Your task to perform on an android device: change alarm snooze length Image 0: 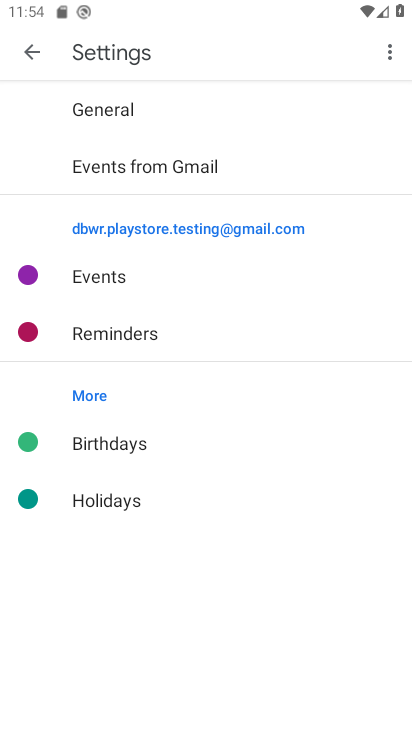
Step 0: press home button
Your task to perform on an android device: change alarm snooze length Image 1: 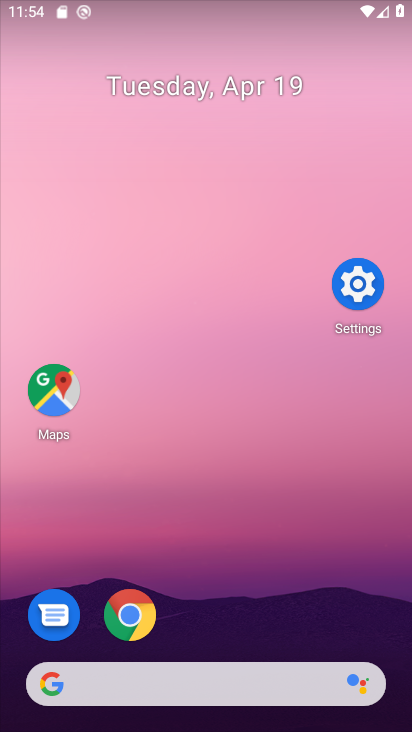
Step 1: drag from (191, 477) to (230, 185)
Your task to perform on an android device: change alarm snooze length Image 2: 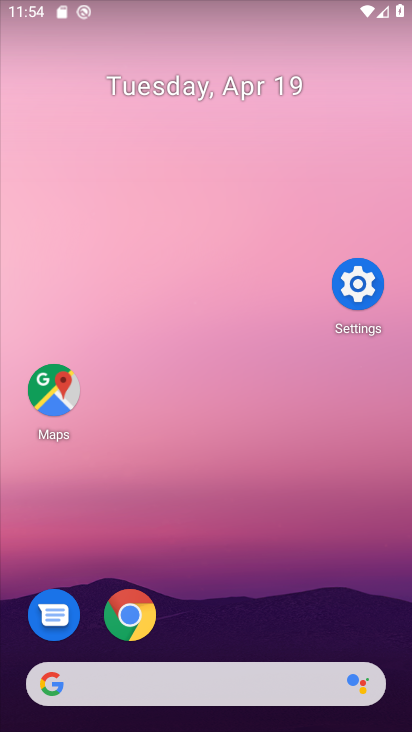
Step 2: drag from (206, 637) to (218, 73)
Your task to perform on an android device: change alarm snooze length Image 3: 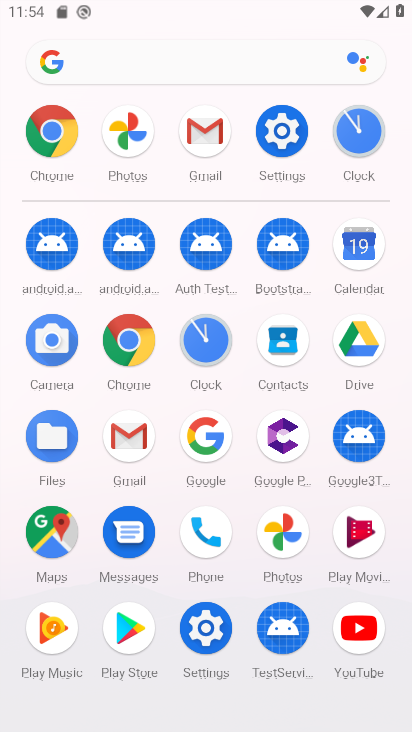
Step 3: click (209, 343)
Your task to perform on an android device: change alarm snooze length Image 4: 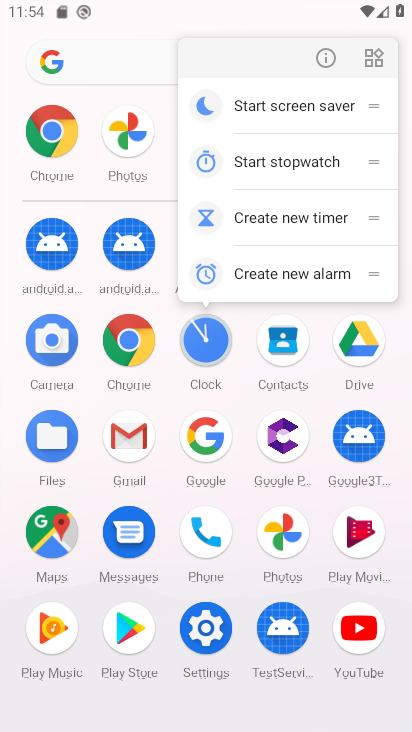
Step 4: click (329, 58)
Your task to perform on an android device: change alarm snooze length Image 5: 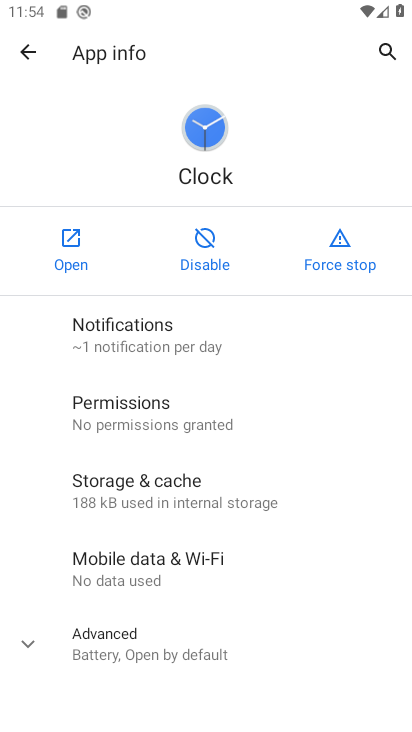
Step 5: click (76, 256)
Your task to perform on an android device: change alarm snooze length Image 6: 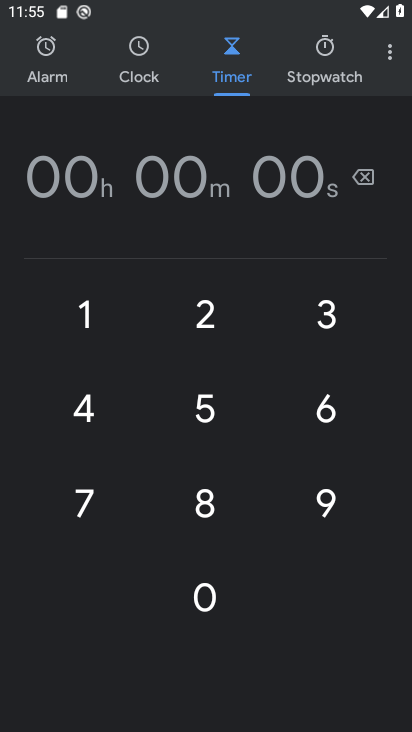
Step 6: click (386, 59)
Your task to perform on an android device: change alarm snooze length Image 7: 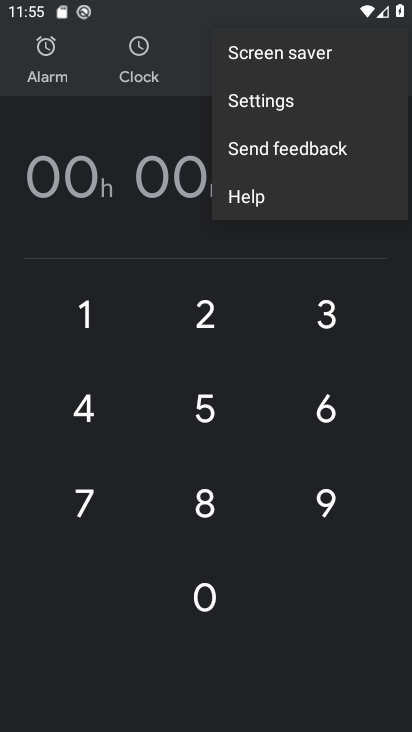
Step 7: click (273, 106)
Your task to perform on an android device: change alarm snooze length Image 8: 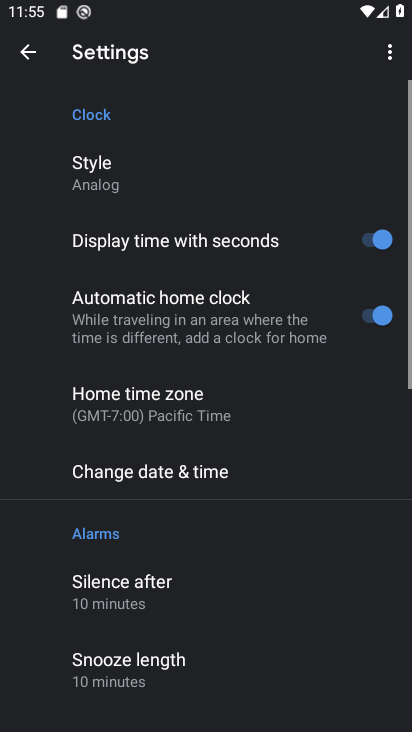
Step 8: drag from (143, 632) to (233, 114)
Your task to perform on an android device: change alarm snooze length Image 9: 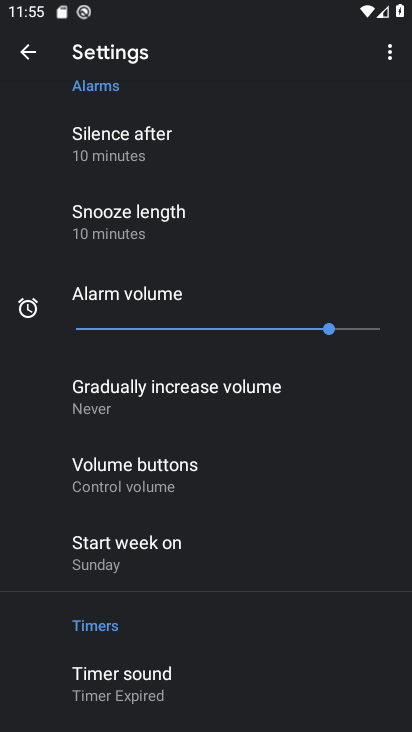
Step 9: click (171, 216)
Your task to perform on an android device: change alarm snooze length Image 10: 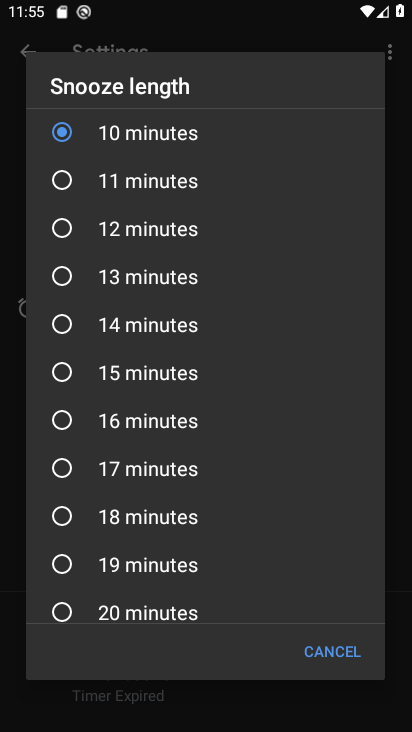
Step 10: click (92, 416)
Your task to perform on an android device: change alarm snooze length Image 11: 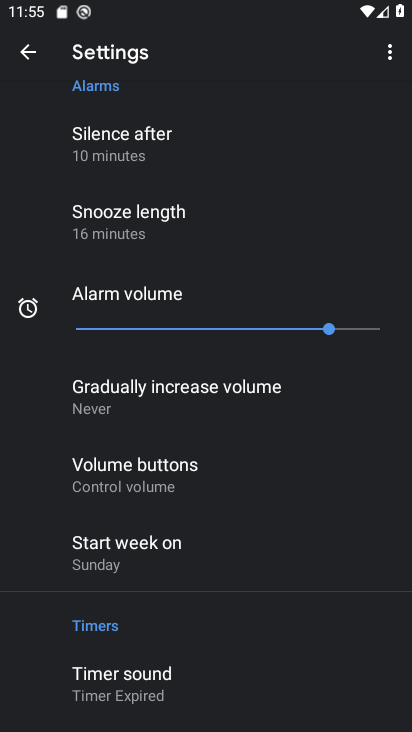
Step 11: task complete